Your task to perform on an android device: Open settings Image 0: 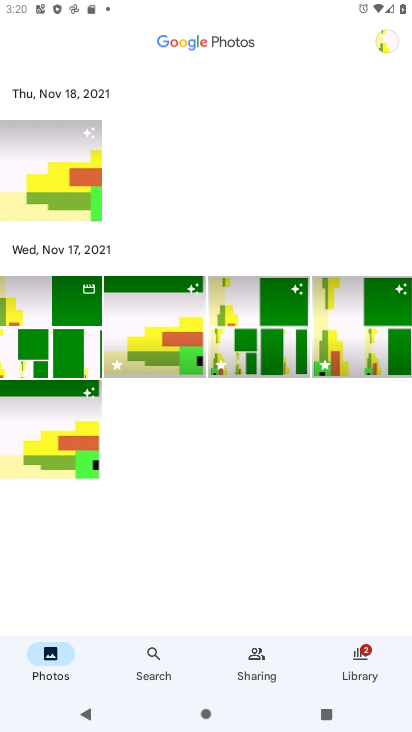
Step 0: press home button
Your task to perform on an android device: Open settings Image 1: 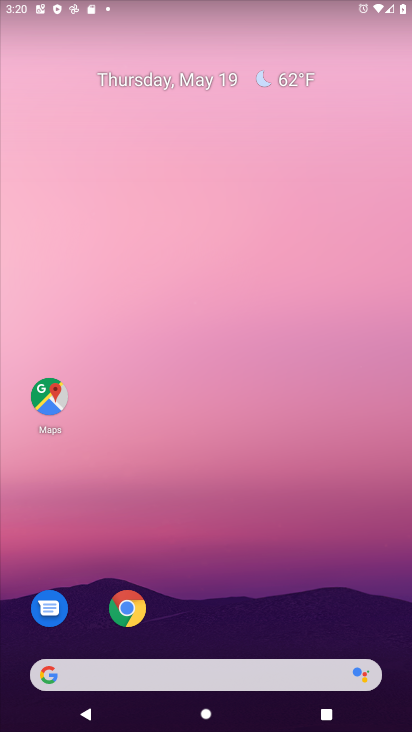
Step 1: drag from (314, 602) to (354, 63)
Your task to perform on an android device: Open settings Image 2: 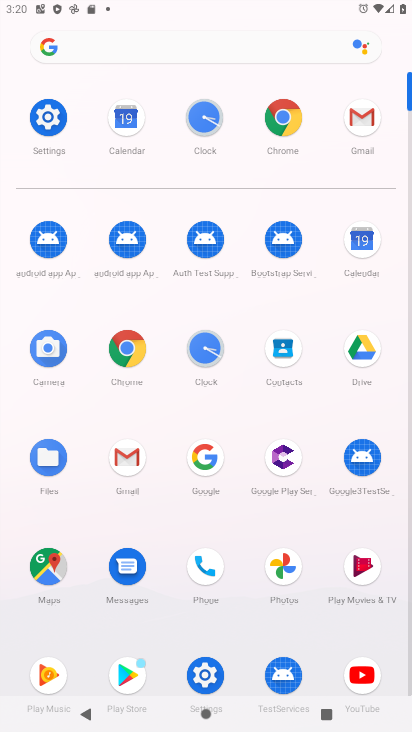
Step 2: click (17, 134)
Your task to perform on an android device: Open settings Image 3: 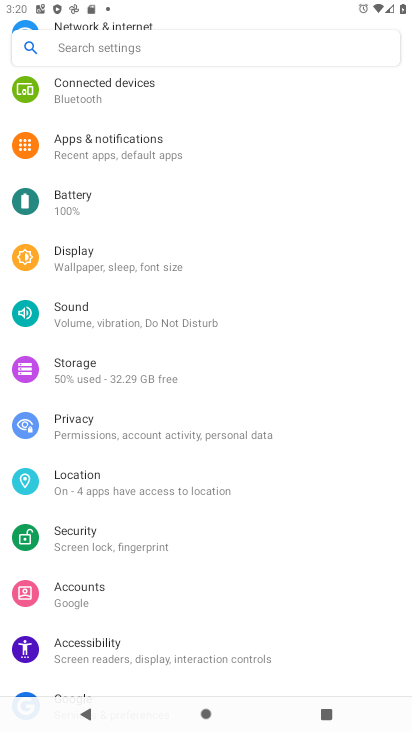
Step 3: task complete